Your task to perform on an android device: install app "Spotify: Music and Podcasts" Image 0: 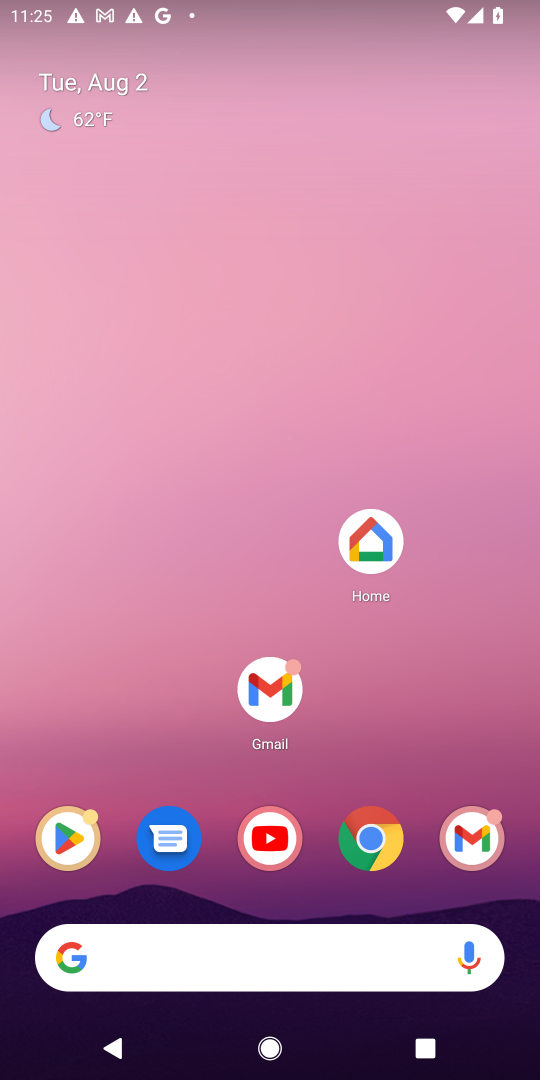
Step 0: drag from (428, 544) to (428, 104)
Your task to perform on an android device: install app "Spotify: Music and Podcasts" Image 1: 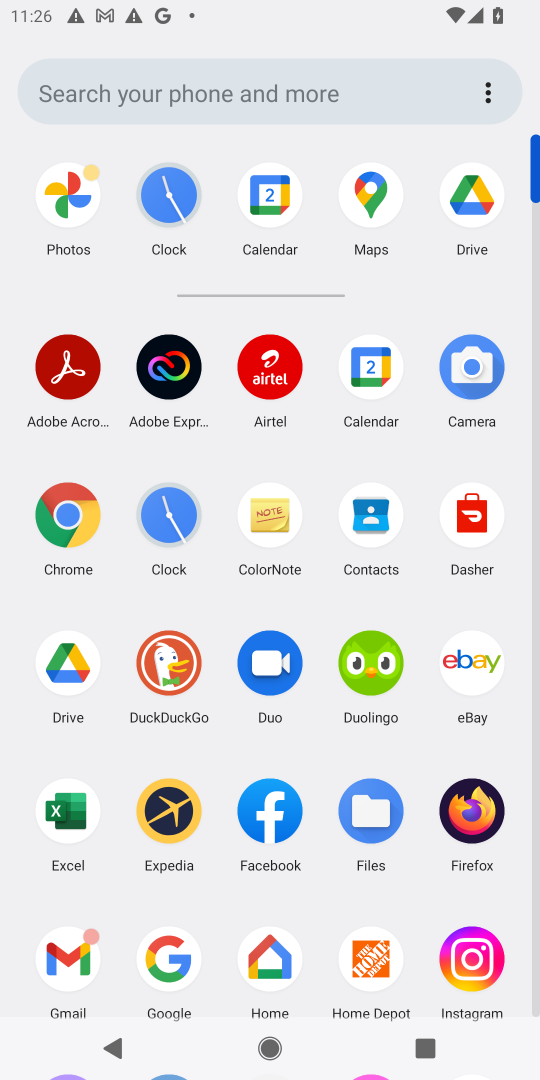
Step 1: drag from (413, 915) to (406, 443)
Your task to perform on an android device: install app "Spotify: Music and Podcasts" Image 2: 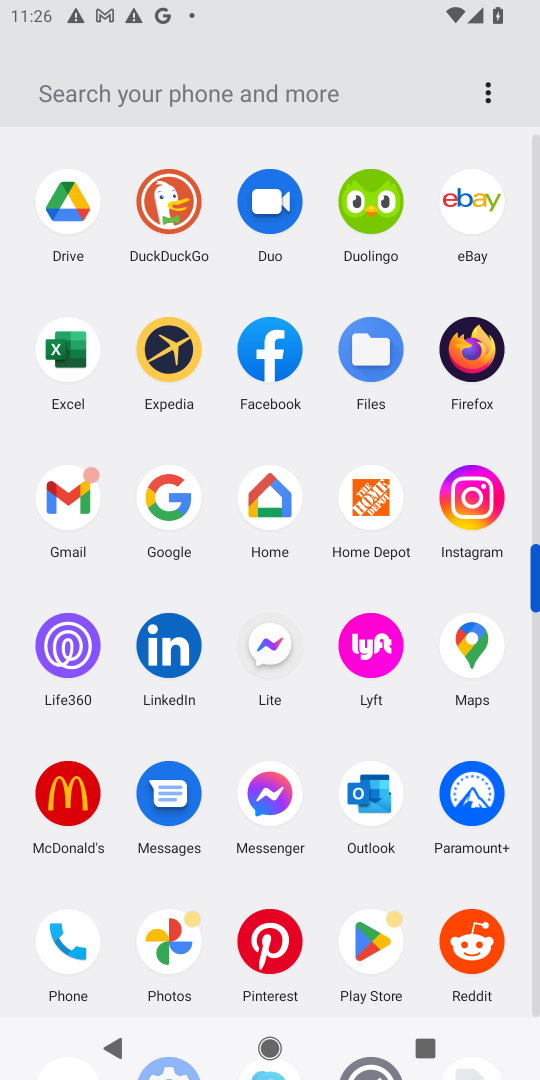
Step 2: click (362, 952)
Your task to perform on an android device: install app "Spotify: Music and Podcasts" Image 3: 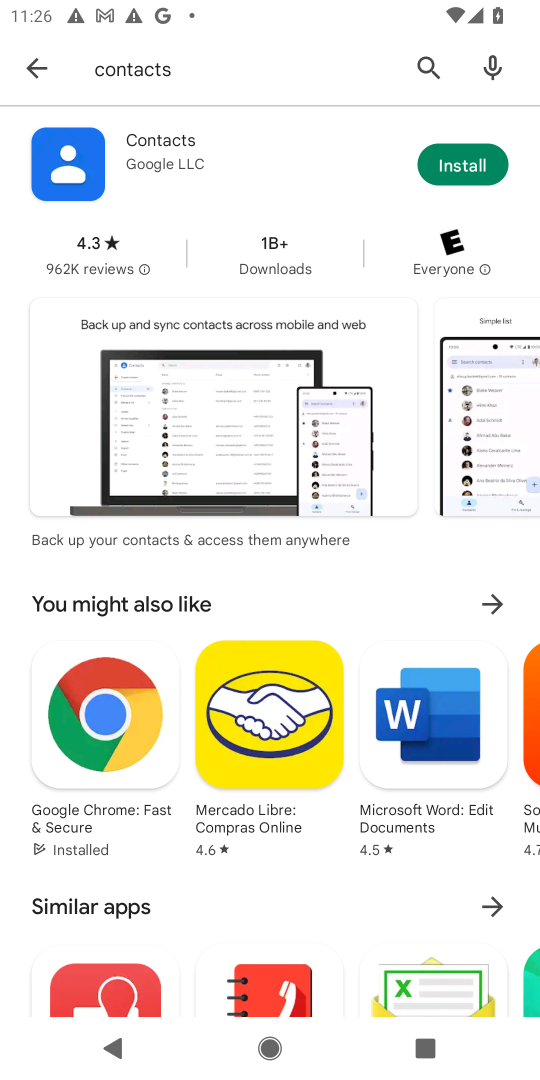
Step 3: click (430, 52)
Your task to perform on an android device: install app "Spotify: Music and Podcasts" Image 4: 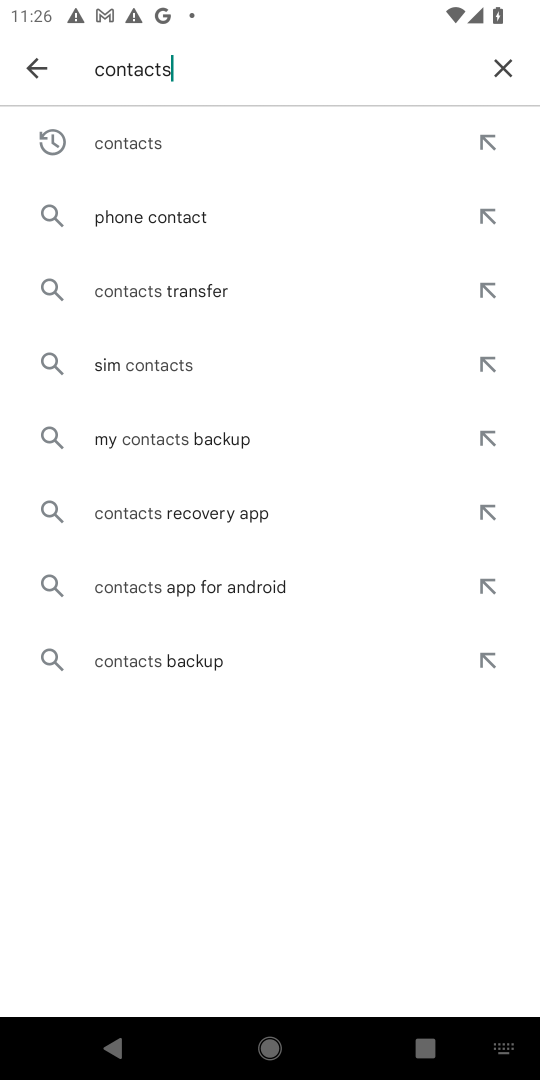
Step 4: click (508, 64)
Your task to perform on an android device: install app "Spotify: Music and Podcasts" Image 5: 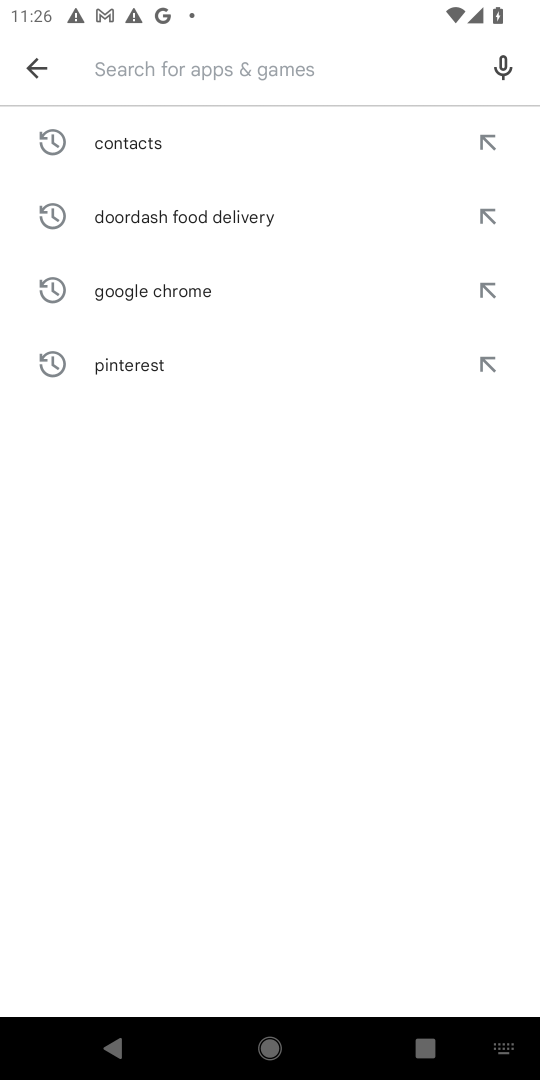
Step 5: type "spotift music prodcasts"
Your task to perform on an android device: install app "Spotify: Music and Podcasts" Image 6: 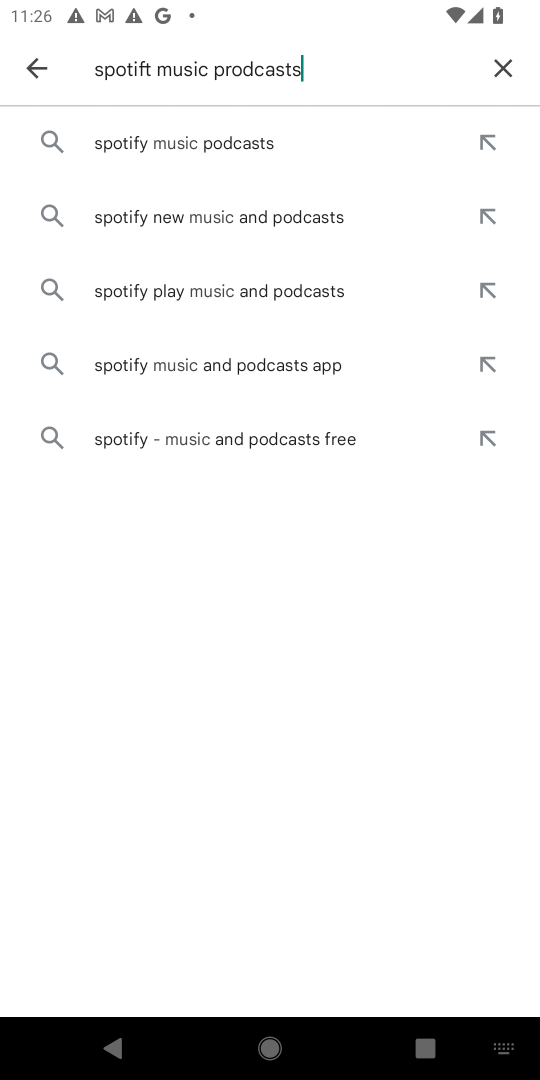
Step 6: click (283, 143)
Your task to perform on an android device: install app "Spotify: Music and Podcasts" Image 7: 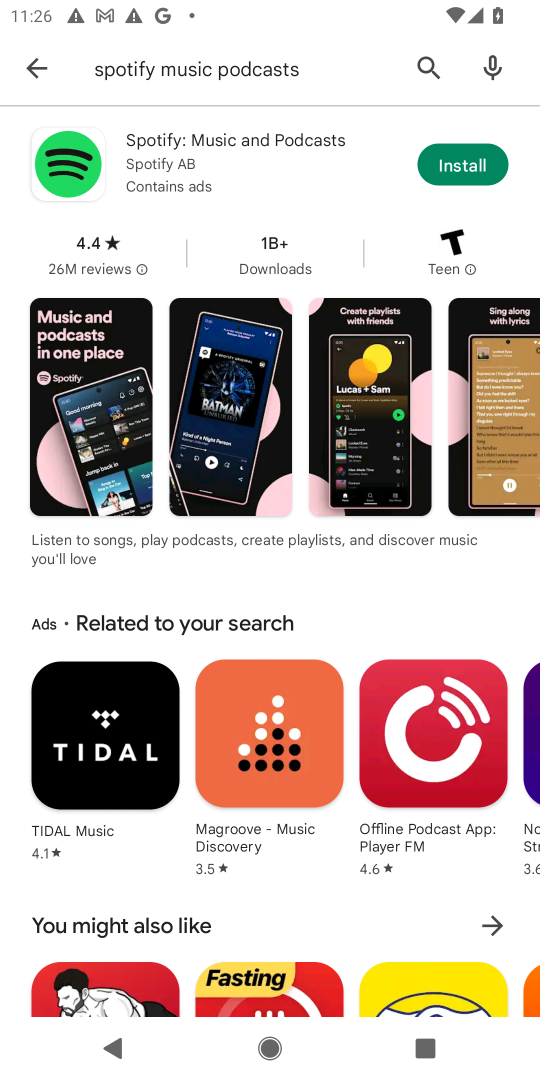
Step 7: click (456, 170)
Your task to perform on an android device: install app "Spotify: Music and Podcasts" Image 8: 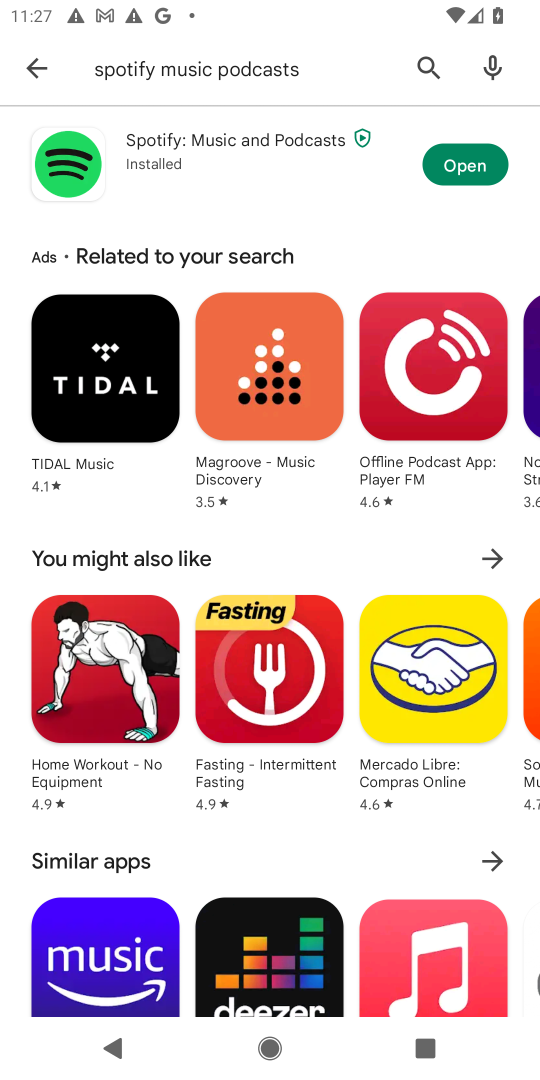
Step 8: task complete